Your task to perform on an android device: What's the weather? Image 0: 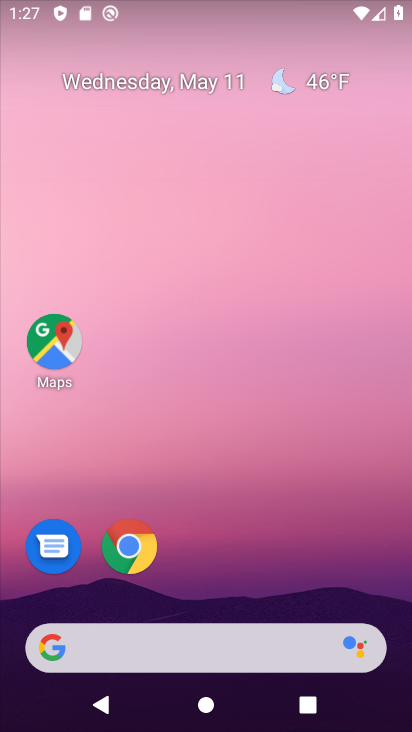
Step 0: drag from (204, 579) to (301, 151)
Your task to perform on an android device: What's the weather? Image 1: 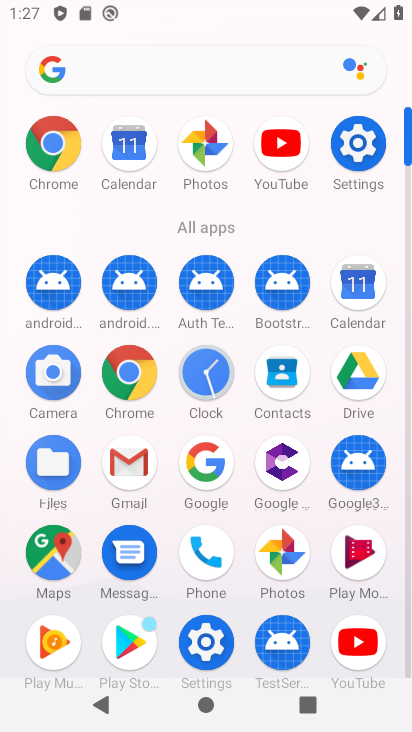
Step 1: click (264, 69)
Your task to perform on an android device: What's the weather? Image 2: 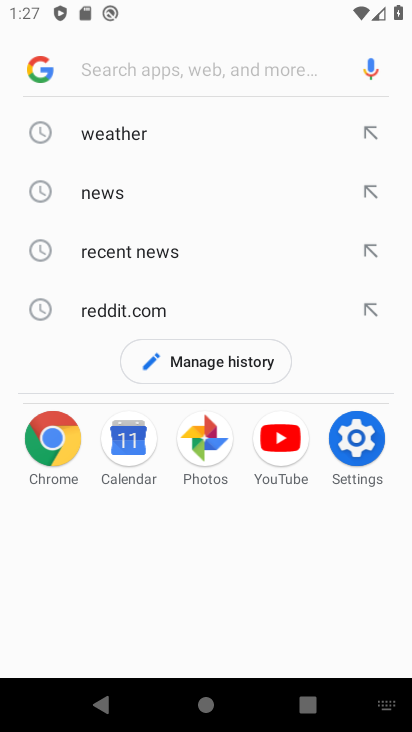
Step 2: click (145, 147)
Your task to perform on an android device: What's the weather? Image 3: 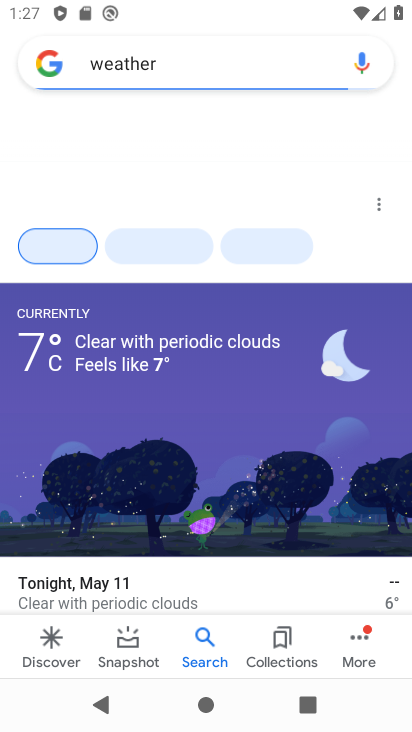
Step 3: task complete